Your task to perform on an android device: toggle notification dots Image 0: 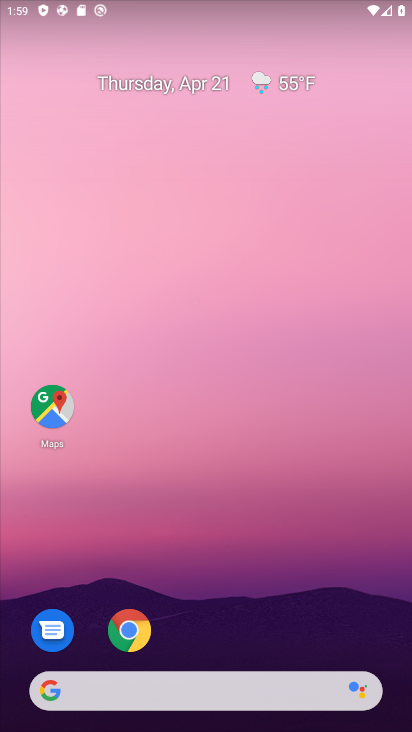
Step 0: drag from (207, 595) to (209, 181)
Your task to perform on an android device: toggle notification dots Image 1: 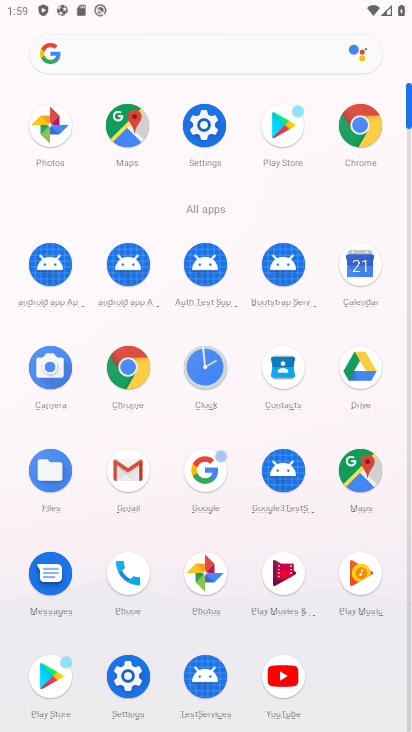
Step 1: click (203, 138)
Your task to perform on an android device: toggle notification dots Image 2: 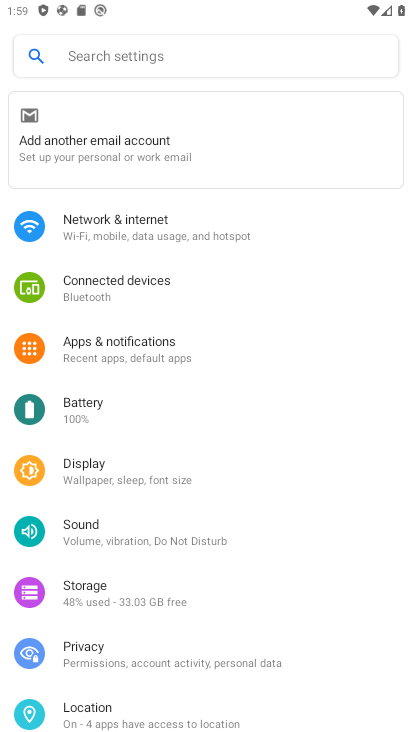
Step 2: click (162, 359)
Your task to perform on an android device: toggle notification dots Image 3: 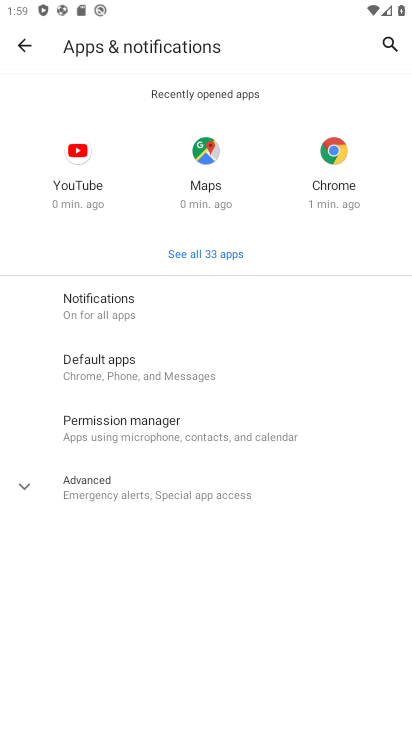
Step 3: click (146, 312)
Your task to perform on an android device: toggle notification dots Image 4: 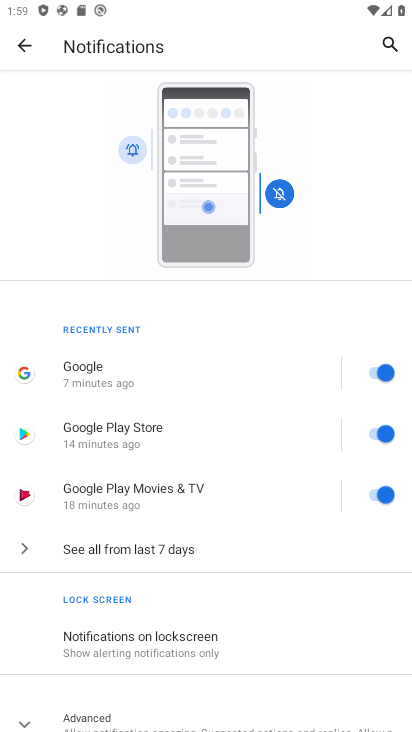
Step 4: drag from (181, 653) to (218, 307)
Your task to perform on an android device: toggle notification dots Image 5: 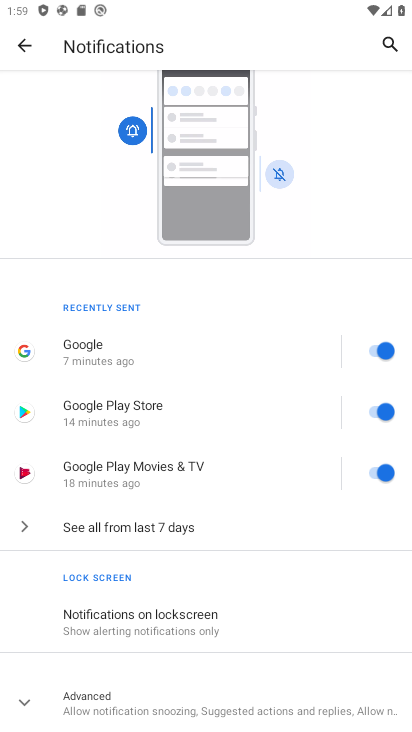
Step 5: click (28, 705)
Your task to perform on an android device: toggle notification dots Image 6: 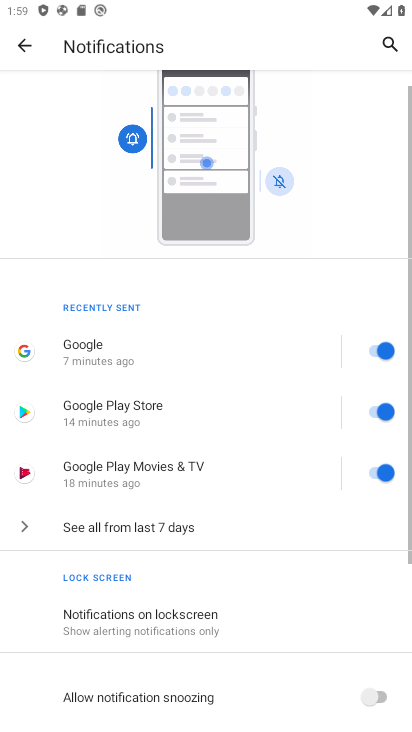
Step 6: drag from (172, 632) to (211, 313)
Your task to perform on an android device: toggle notification dots Image 7: 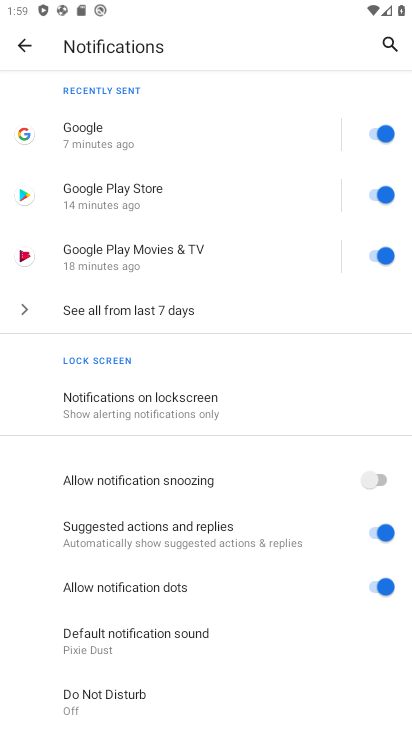
Step 7: click (386, 589)
Your task to perform on an android device: toggle notification dots Image 8: 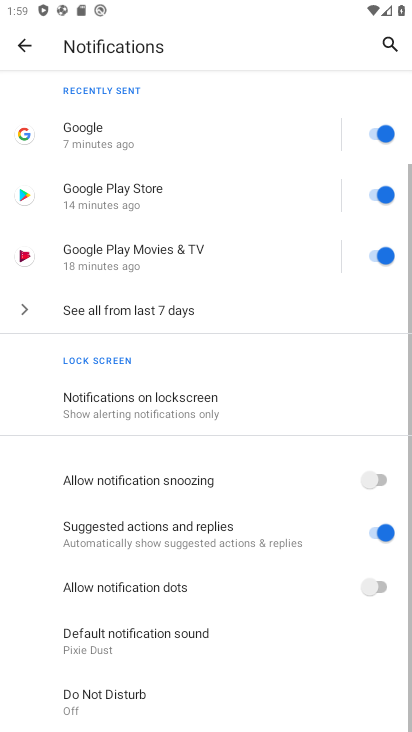
Step 8: task complete